Your task to perform on an android device: turn on showing notifications on the lock screen Image 0: 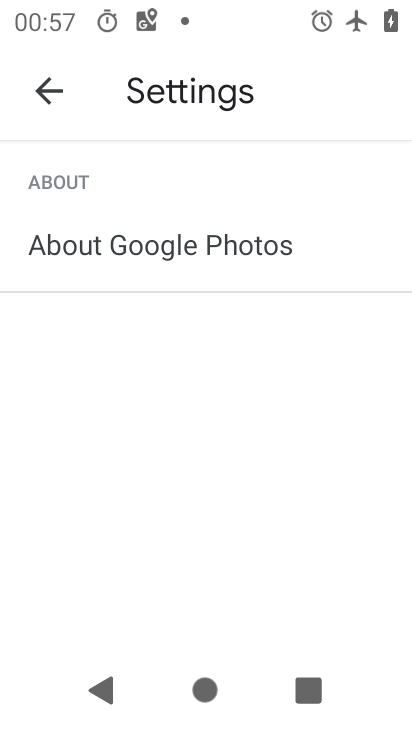
Step 0: press home button
Your task to perform on an android device: turn on showing notifications on the lock screen Image 1: 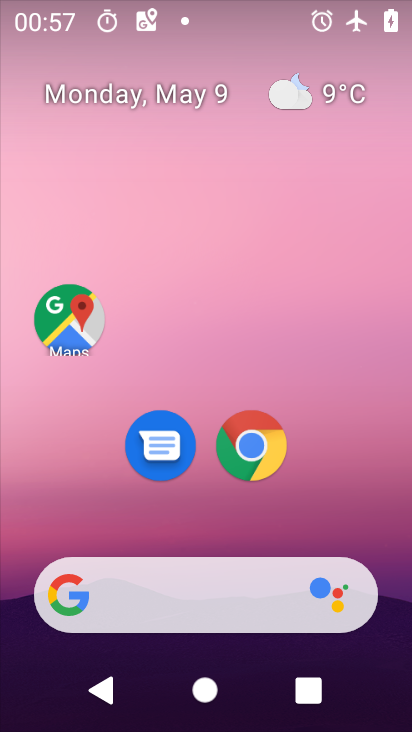
Step 1: drag from (386, 526) to (405, 53)
Your task to perform on an android device: turn on showing notifications on the lock screen Image 2: 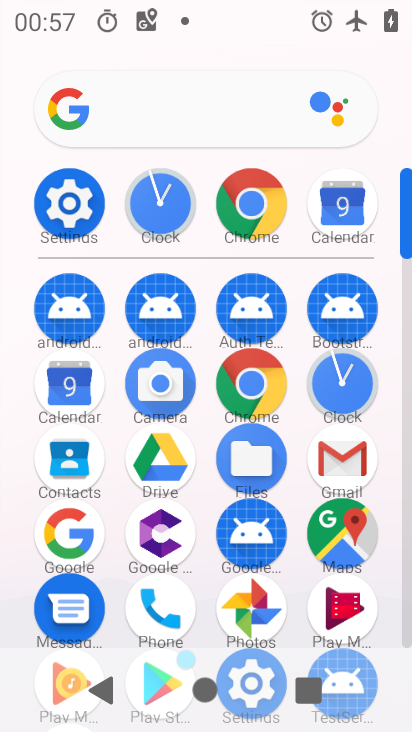
Step 2: click (71, 210)
Your task to perform on an android device: turn on showing notifications on the lock screen Image 3: 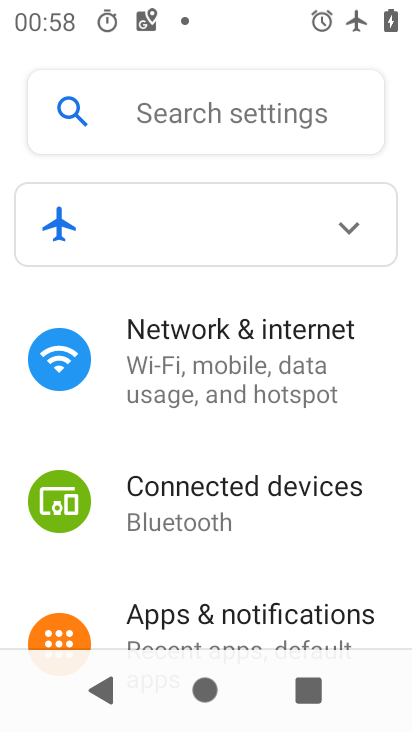
Step 3: click (234, 620)
Your task to perform on an android device: turn on showing notifications on the lock screen Image 4: 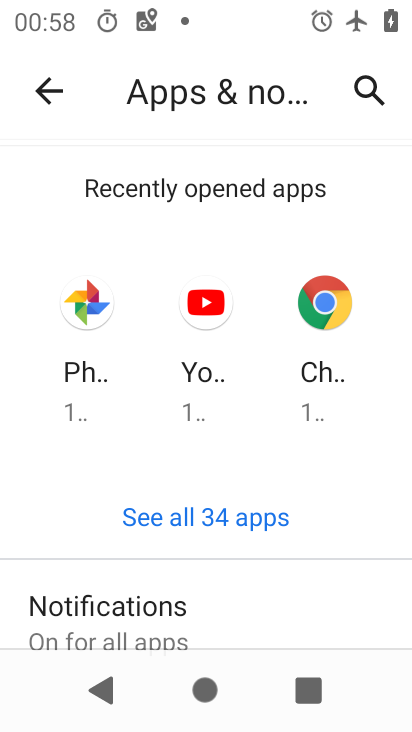
Step 4: drag from (240, 585) to (258, 356)
Your task to perform on an android device: turn on showing notifications on the lock screen Image 5: 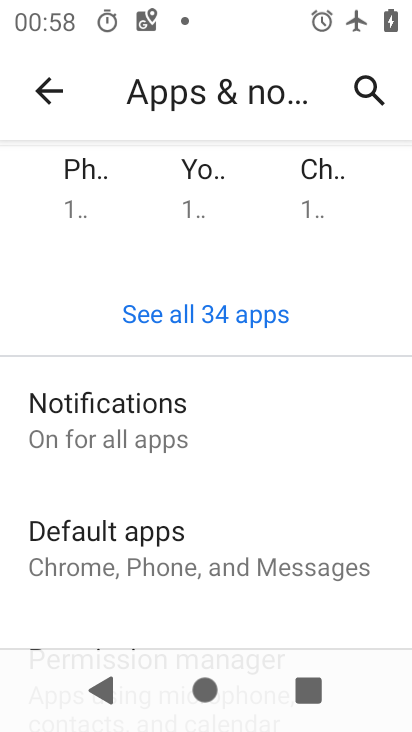
Step 5: click (134, 423)
Your task to perform on an android device: turn on showing notifications on the lock screen Image 6: 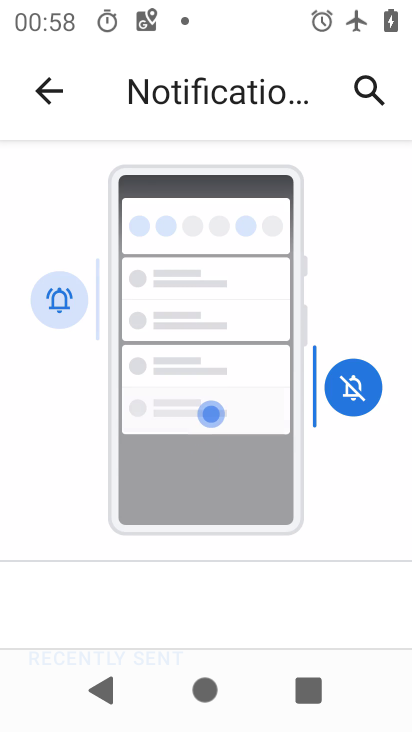
Step 6: drag from (258, 569) to (281, 108)
Your task to perform on an android device: turn on showing notifications on the lock screen Image 7: 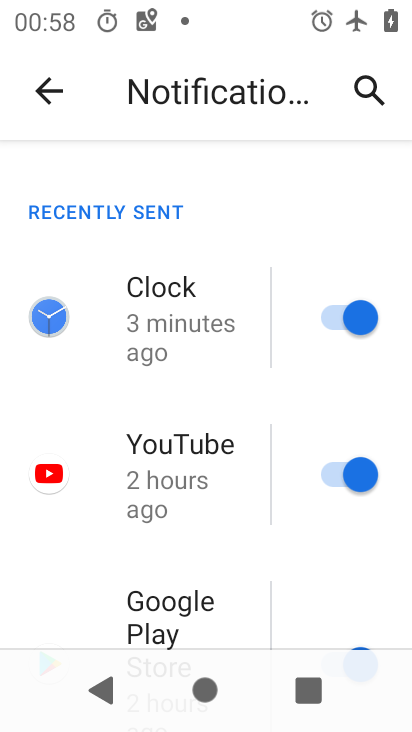
Step 7: drag from (196, 520) to (202, 224)
Your task to perform on an android device: turn on showing notifications on the lock screen Image 8: 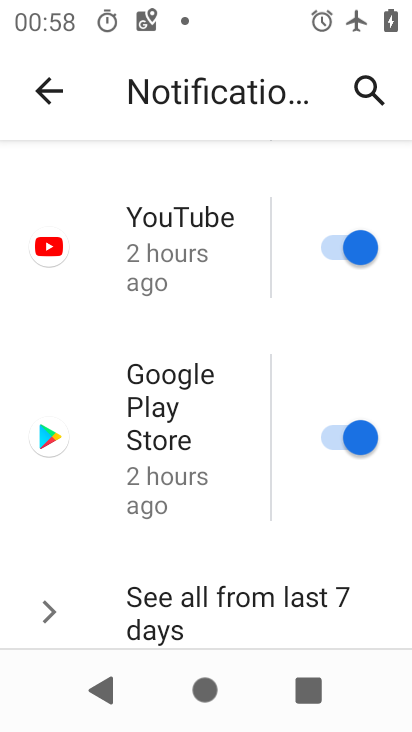
Step 8: drag from (172, 605) to (182, 255)
Your task to perform on an android device: turn on showing notifications on the lock screen Image 9: 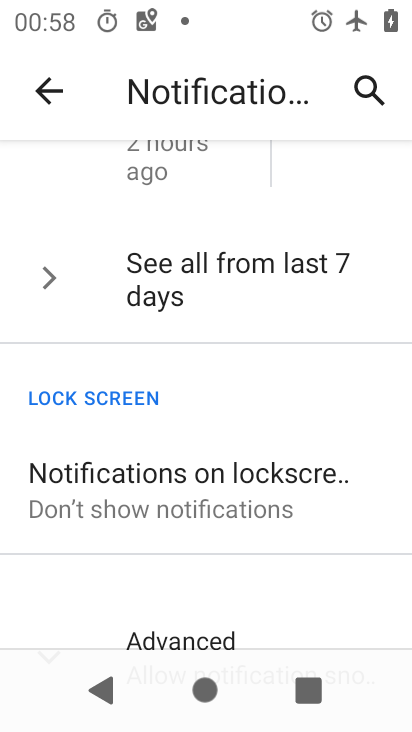
Step 9: click (140, 506)
Your task to perform on an android device: turn on showing notifications on the lock screen Image 10: 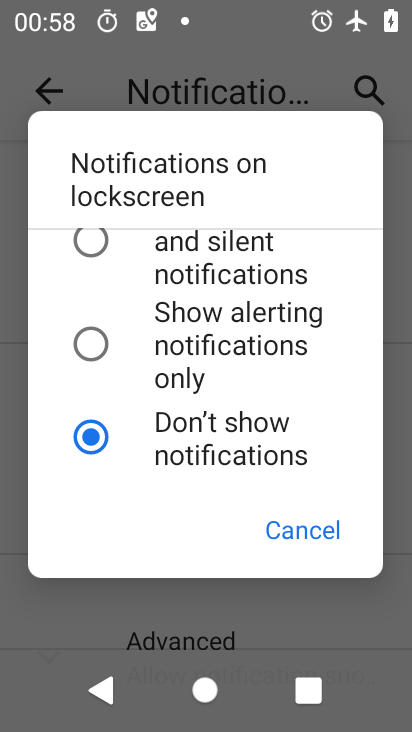
Step 10: drag from (255, 382) to (248, 508)
Your task to perform on an android device: turn on showing notifications on the lock screen Image 11: 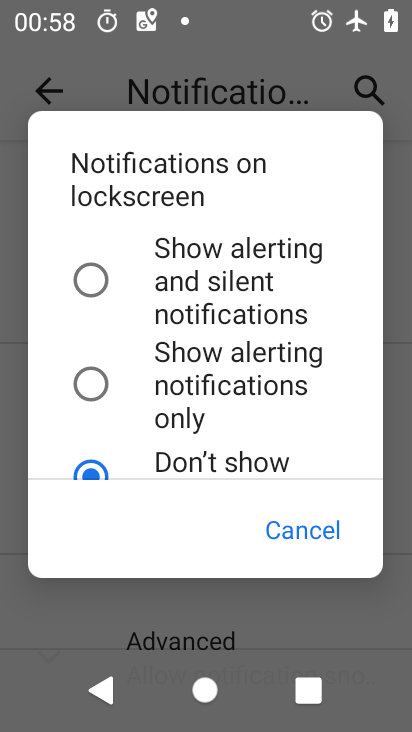
Step 11: click (92, 280)
Your task to perform on an android device: turn on showing notifications on the lock screen Image 12: 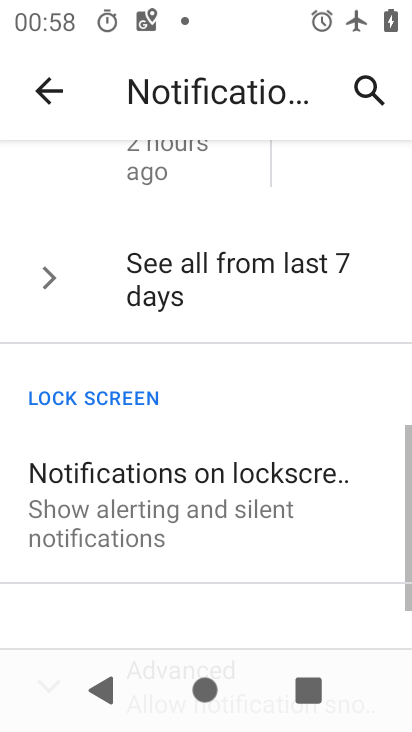
Step 12: task complete